Your task to perform on an android device: Open maps Image 0: 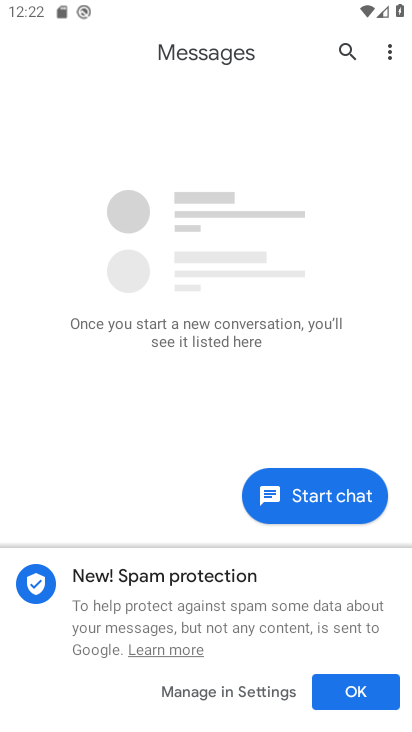
Step 0: press home button
Your task to perform on an android device: Open maps Image 1: 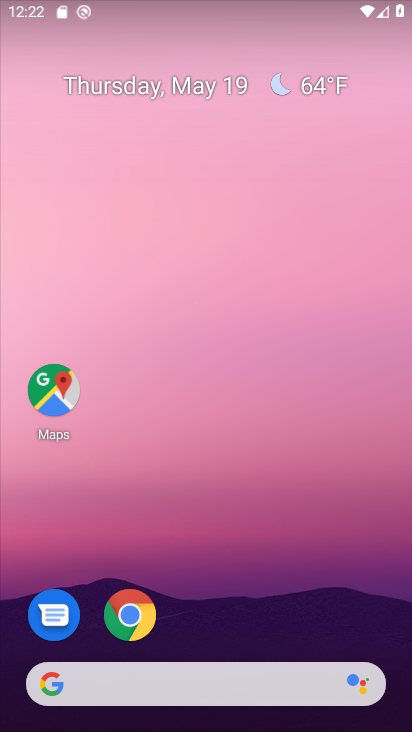
Step 1: drag from (265, 717) to (313, 290)
Your task to perform on an android device: Open maps Image 2: 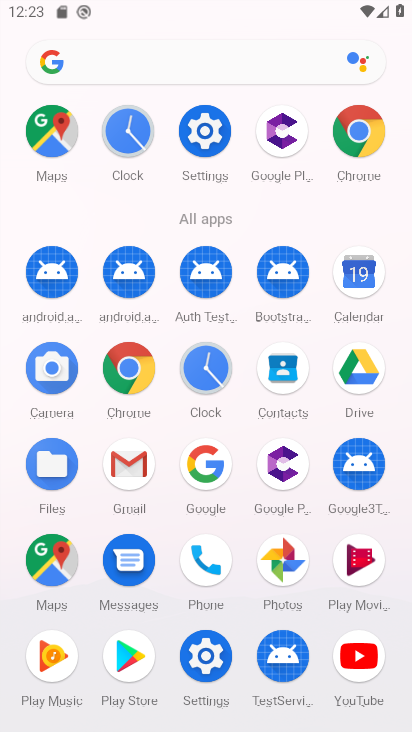
Step 2: click (64, 141)
Your task to perform on an android device: Open maps Image 3: 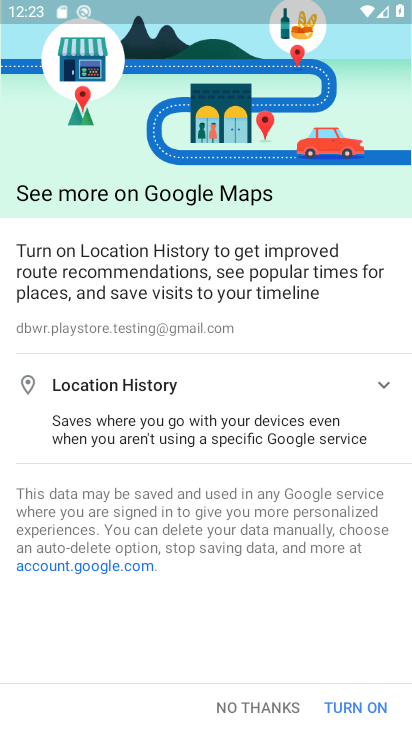
Step 3: click (242, 709)
Your task to perform on an android device: Open maps Image 4: 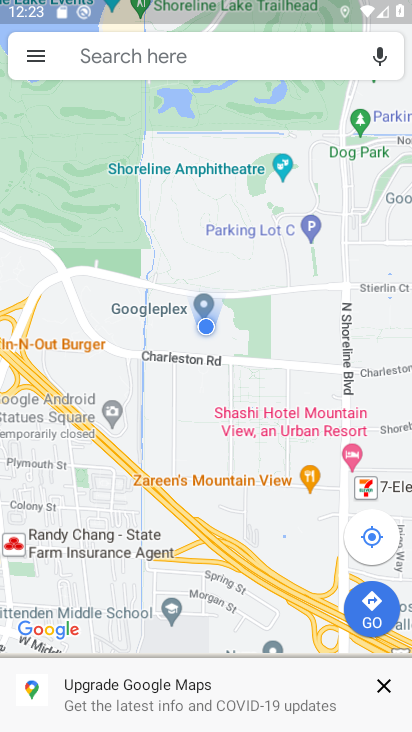
Step 4: click (373, 529)
Your task to perform on an android device: Open maps Image 5: 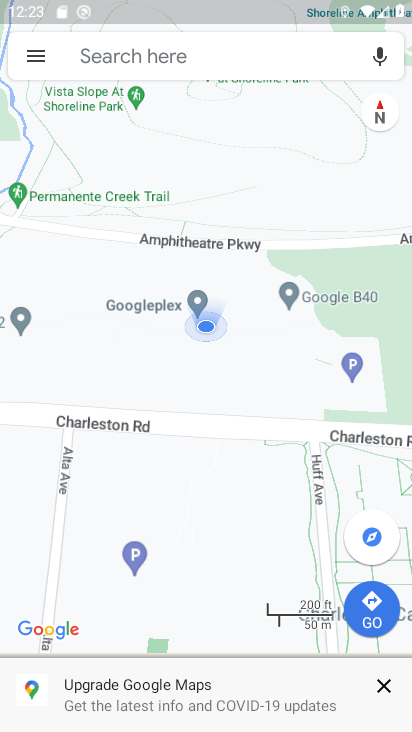
Step 5: task complete